Your task to perform on an android device: Open Chrome and go to settings Image 0: 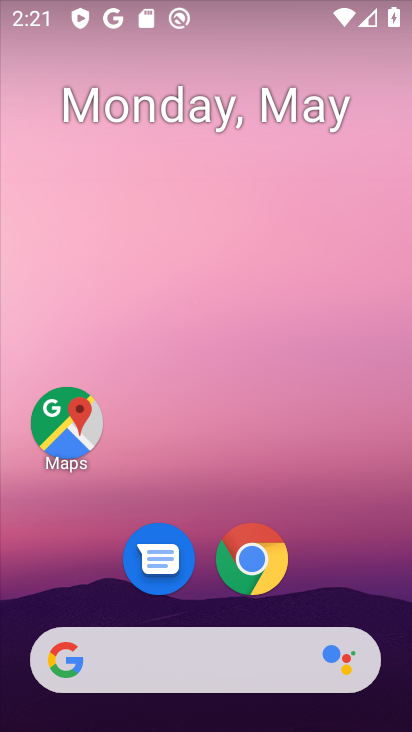
Step 0: click (250, 553)
Your task to perform on an android device: Open Chrome and go to settings Image 1: 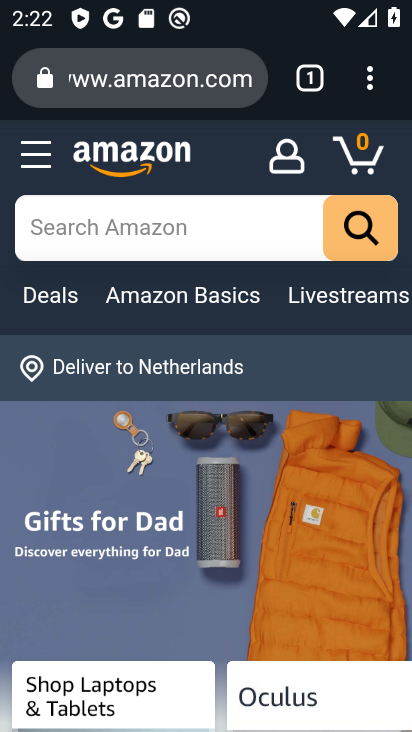
Step 1: click (369, 82)
Your task to perform on an android device: Open Chrome and go to settings Image 2: 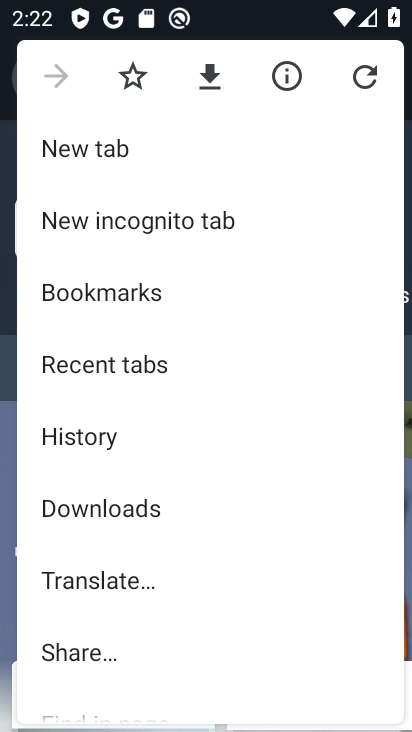
Step 2: drag from (133, 669) to (170, 291)
Your task to perform on an android device: Open Chrome and go to settings Image 3: 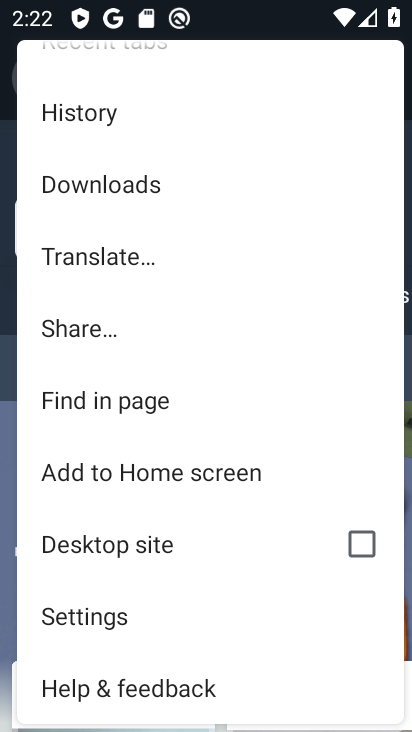
Step 3: click (99, 628)
Your task to perform on an android device: Open Chrome and go to settings Image 4: 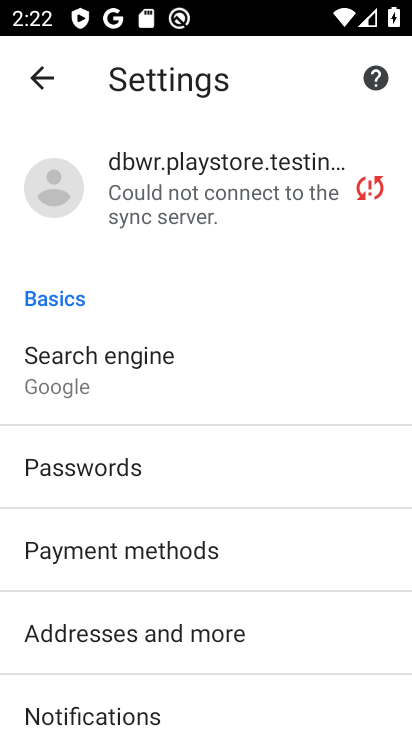
Step 4: task complete